Your task to perform on an android device: turn off picture-in-picture Image 0: 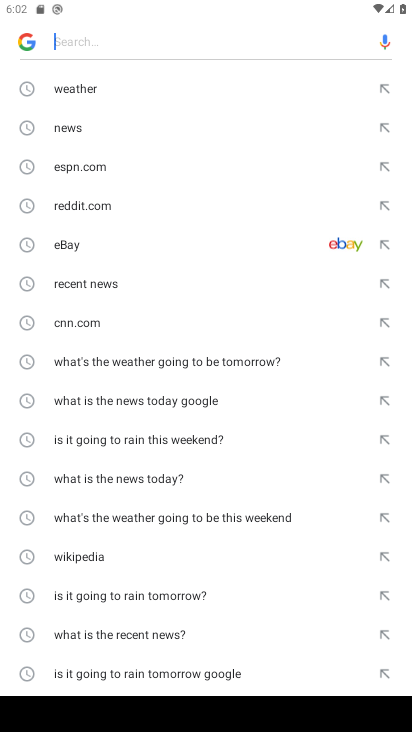
Step 0: press home button
Your task to perform on an android device: turn off picture-in-picture Image 1: 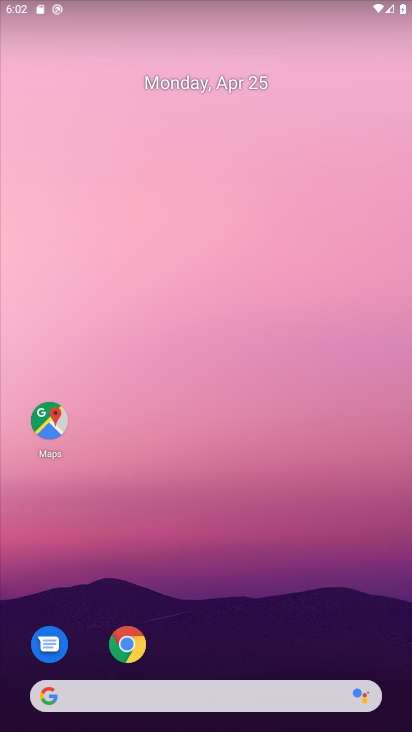
Step 1: drag from (253, 572) to (241, 32)
Your task to perform on an android device: turn off picture-in-picture Image 2: 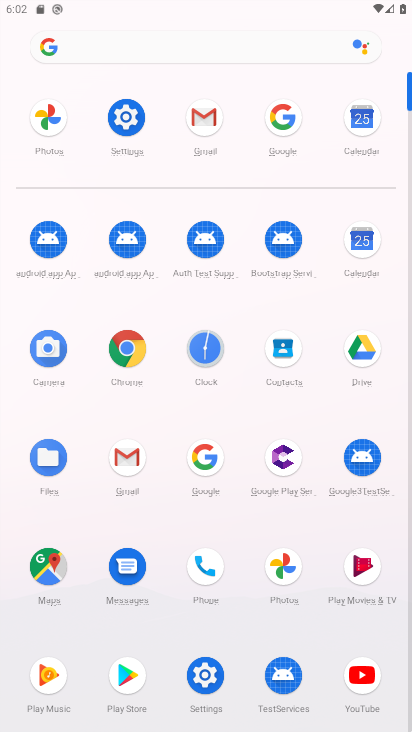
Step 2: click (126, 131)
Your task to perform on an android device: turn off picture-in-picture Image 3: 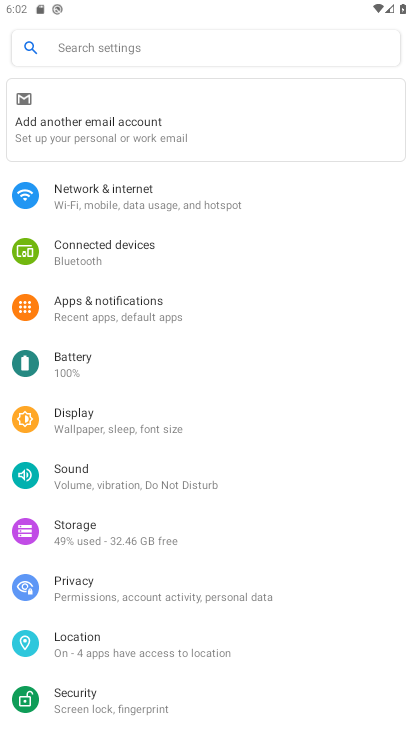
Step 3: click (194, 318)
Your task to perform on an android device: turn off picture-in-picture Image 4: 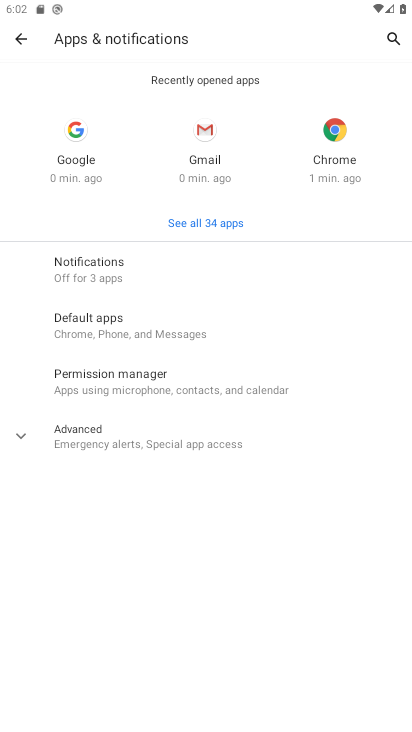
Step 4: click (168, 427)
Your task to perform on an android device: turn off picture-in-picture Image 5: 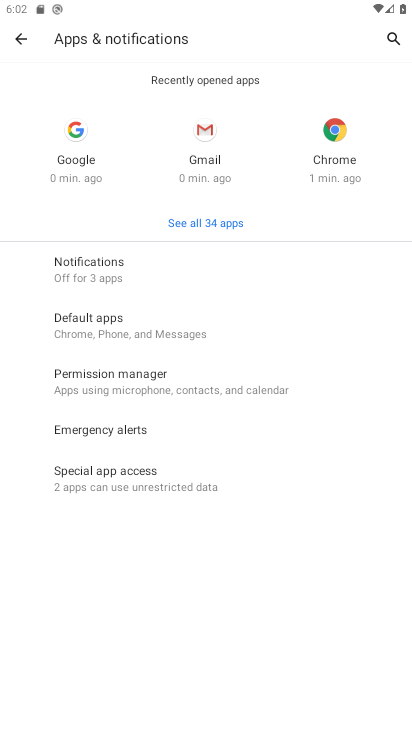
Step 5: click (183, 483)
Your task to perform on an android device: turn off picture-in-picture Image 6: 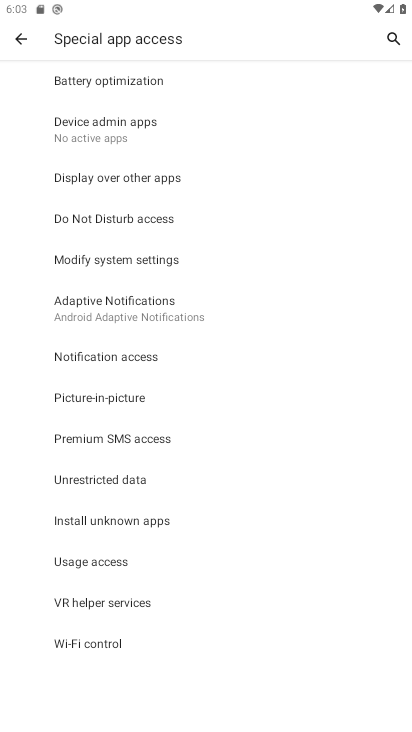
Step 6: click (130, 398)
Your task to perform on an android device: turn off picture-in-picture Image 7: 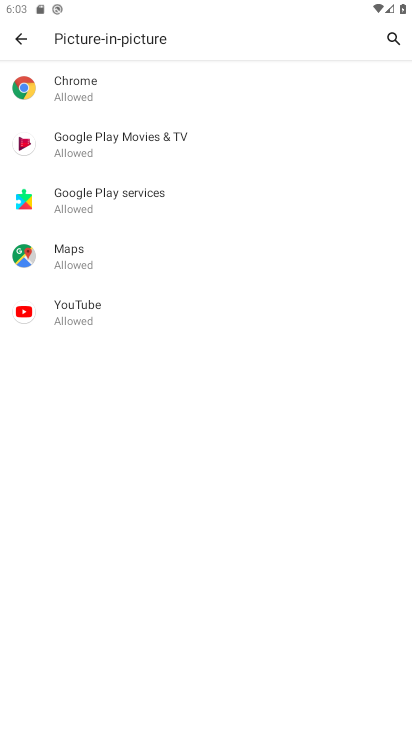
Step 7: click (119, 94)
Your task to perform on an android device: turn off picture-in-picture Image 8: 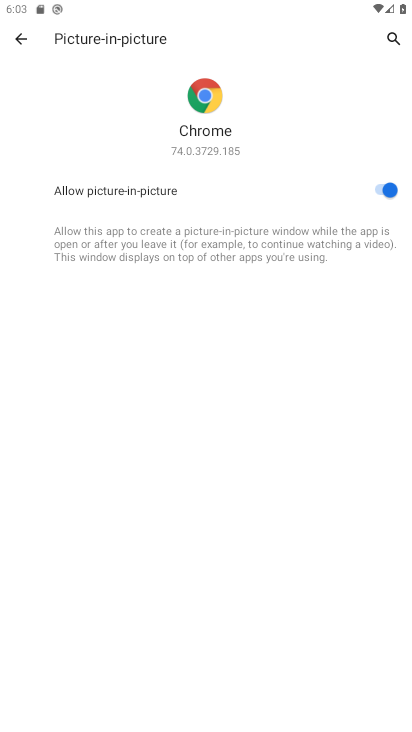
Step 8: click (385, 190)
Your task to perform on an android device: turn off picture-in-picture Image 9: 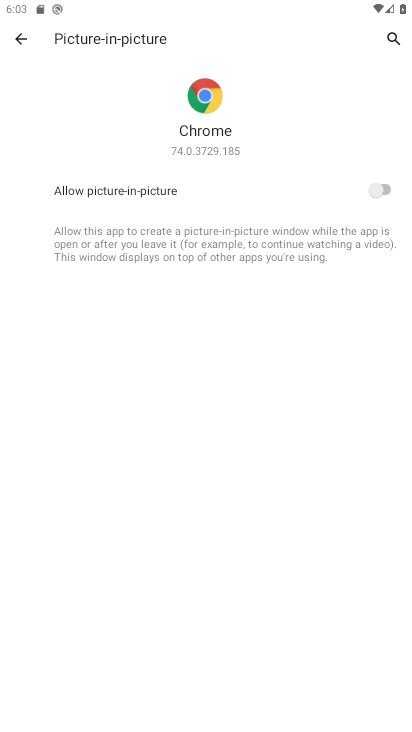
Step 9: task complete